Your task to perform on an android device: When is my next appointment? Image 0: 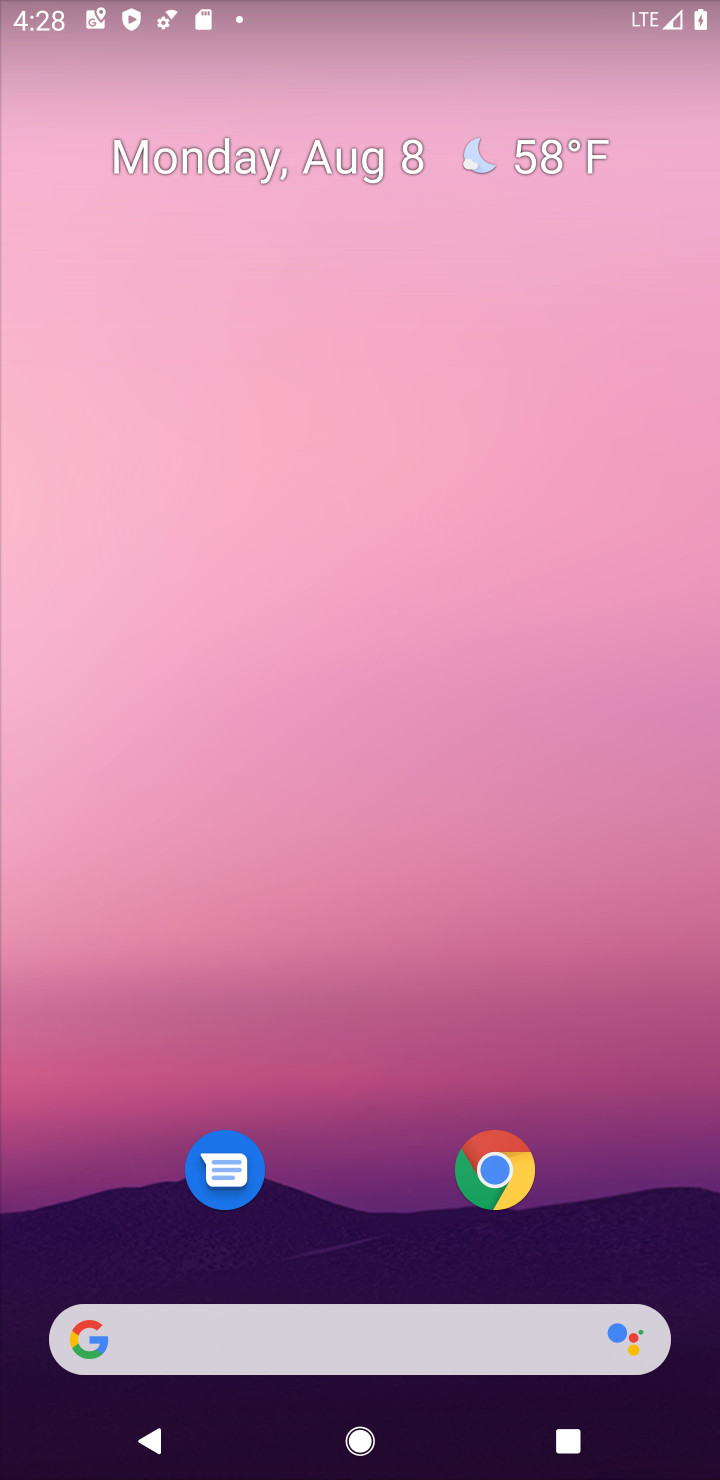
Step 0: drag from (349, 1128) to (349, 368)
Your task to perform on an android device: When is my next appointment? Image 1: 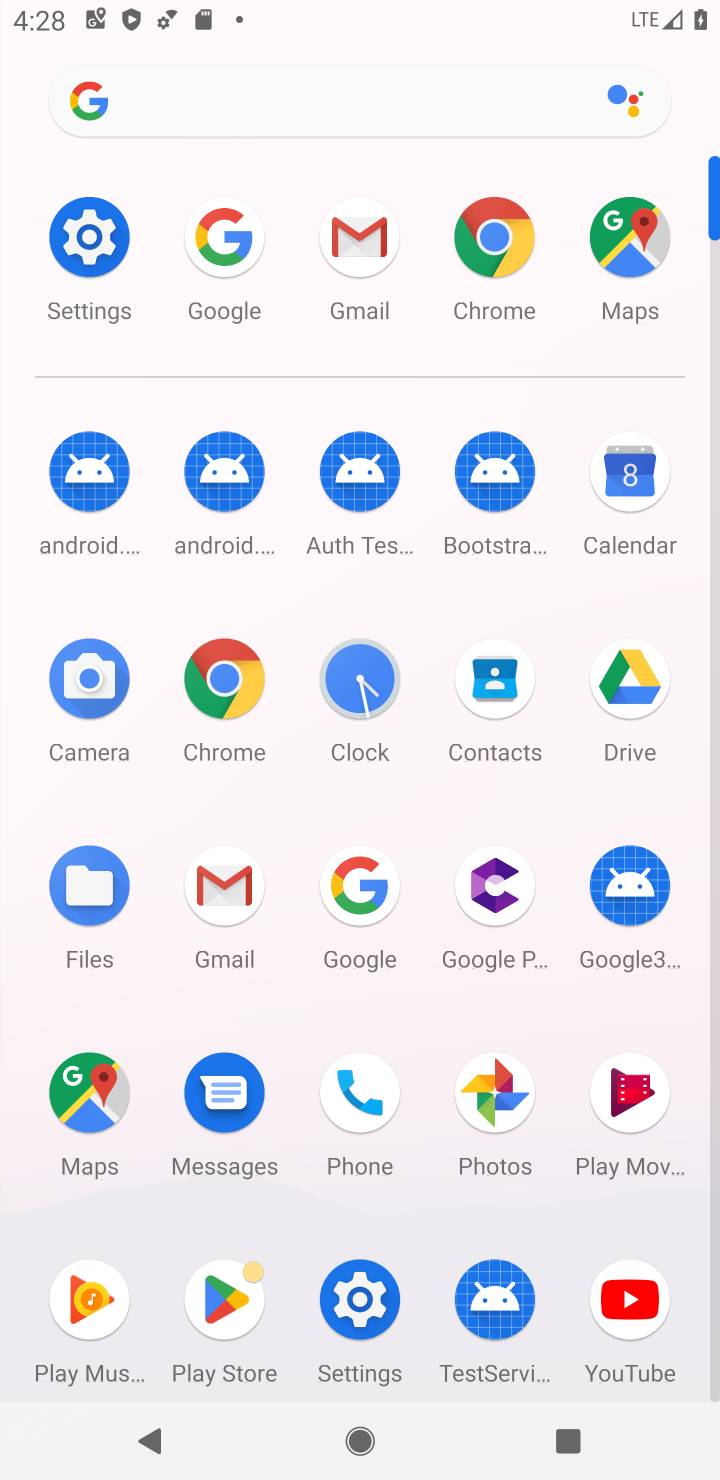
Step 1: click (632, 507)
Your task to perform on an android device: When is my next appointment? Image 2: 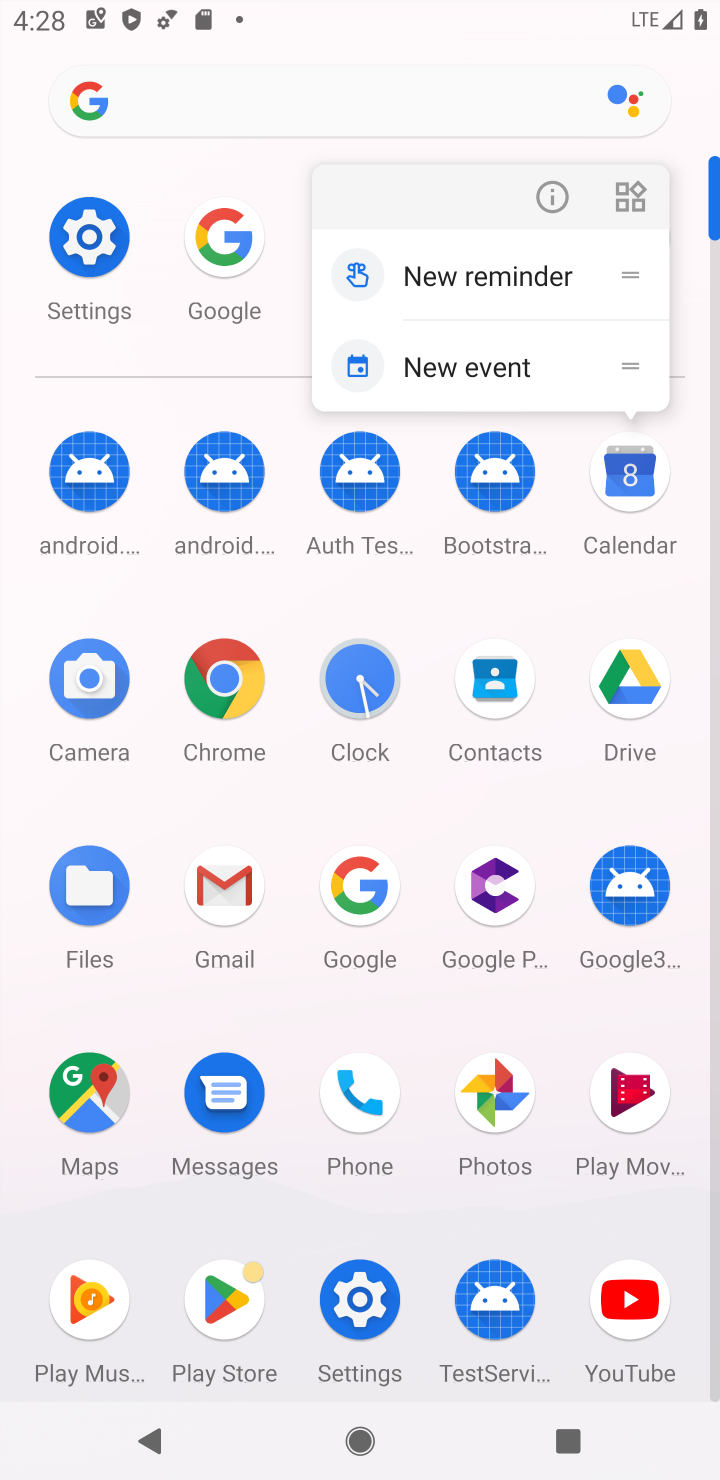
Step 2: click (632, 507)
Your task to perform on an android device: When is my next appointment? Image 3: 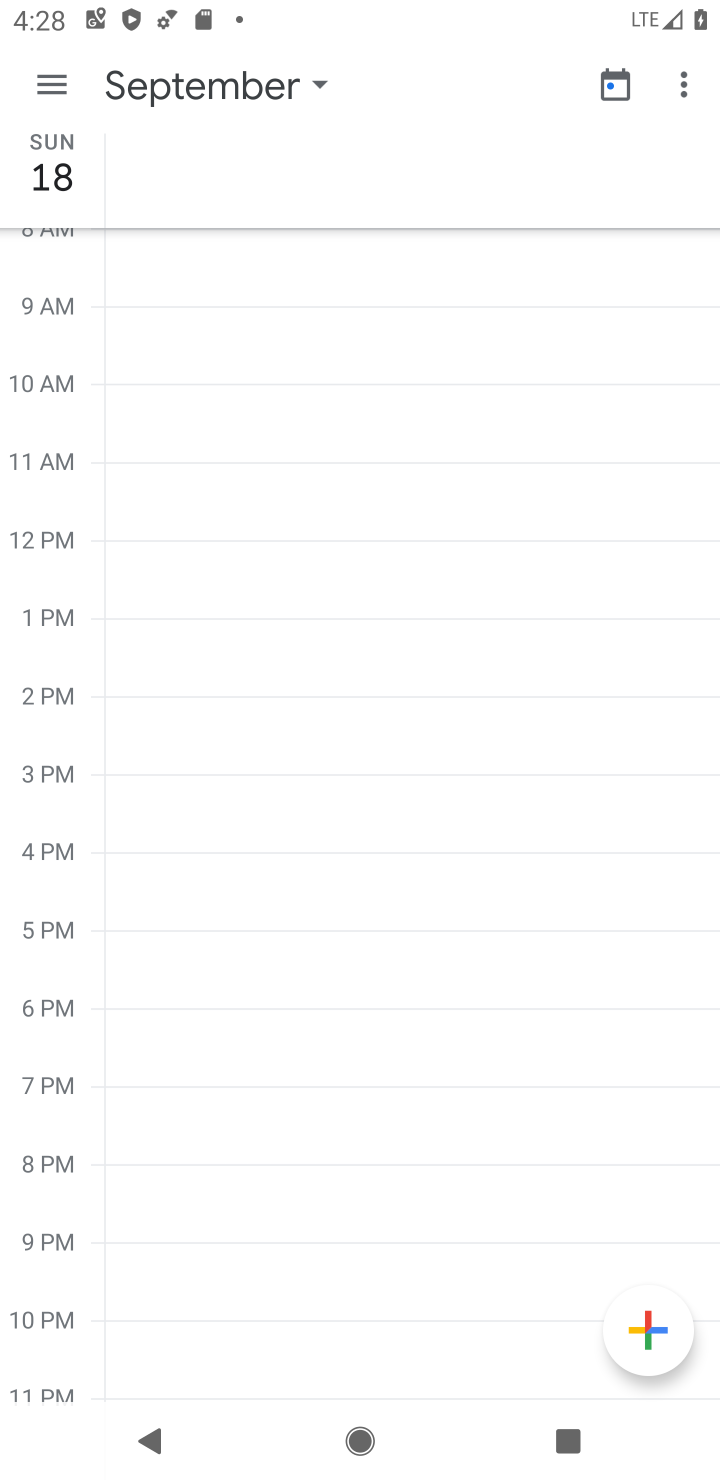
Step 3: click (65, 102)
Your task to perform on an android device: When is my next appointment? Image 4: 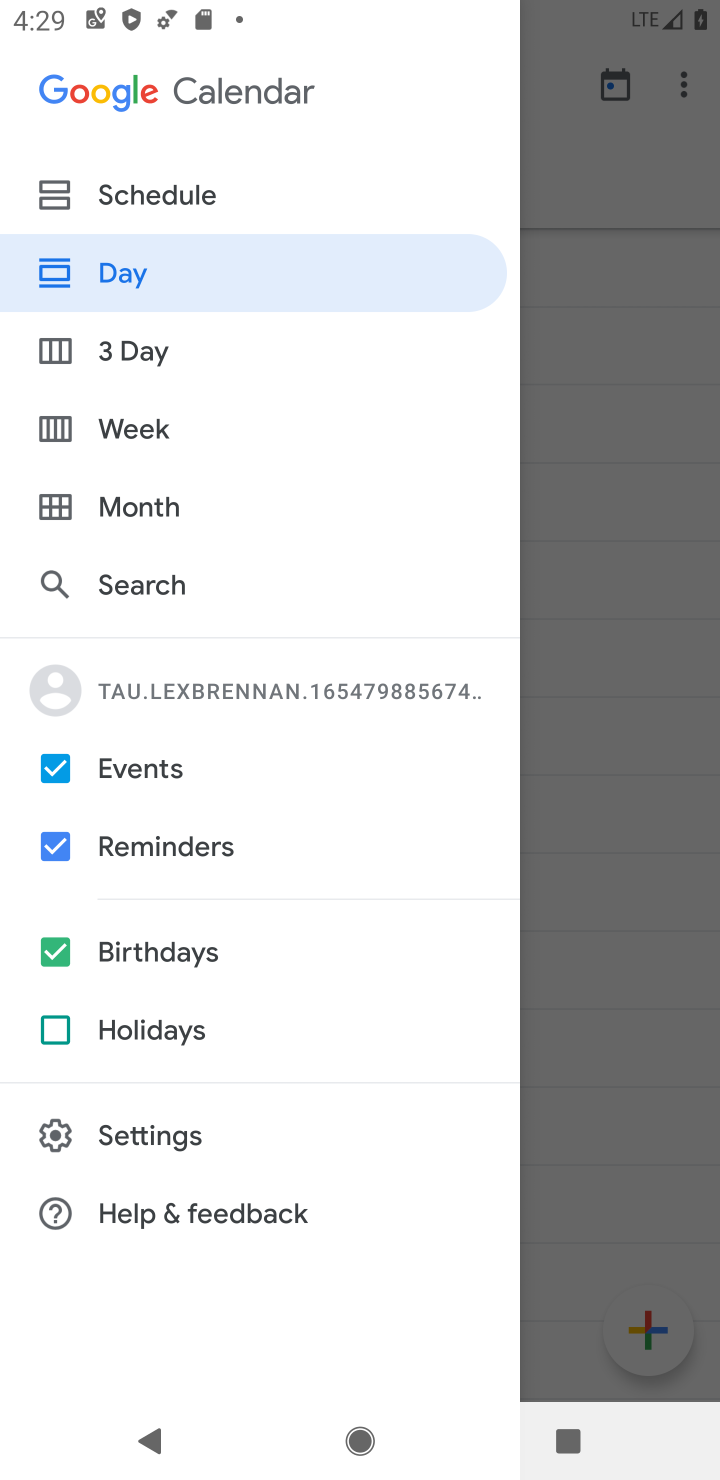
Step 4: click (226, 208)
Your task to perform on an android device: When is my next appointment? Image 5: 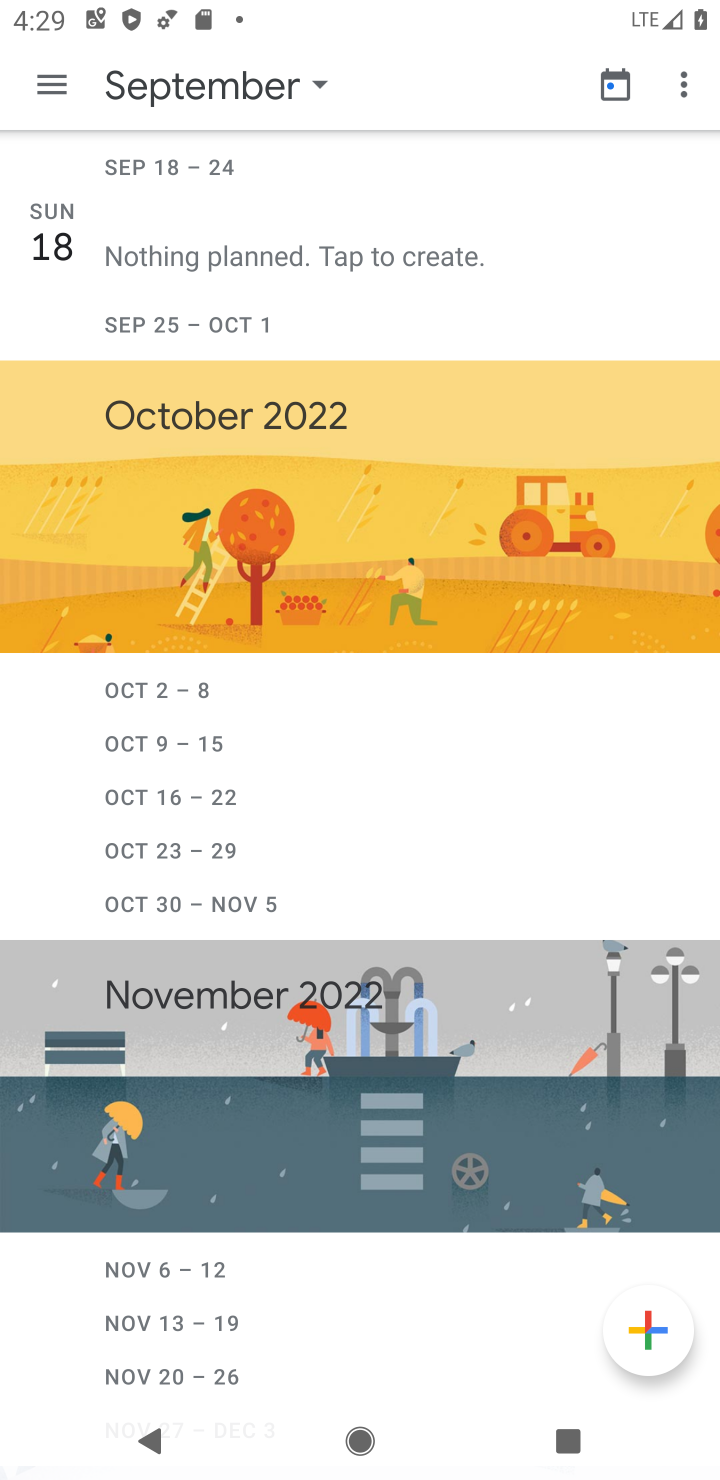
Step 5: task complete